Your task to perform on an android device: Go to Google Image 0: 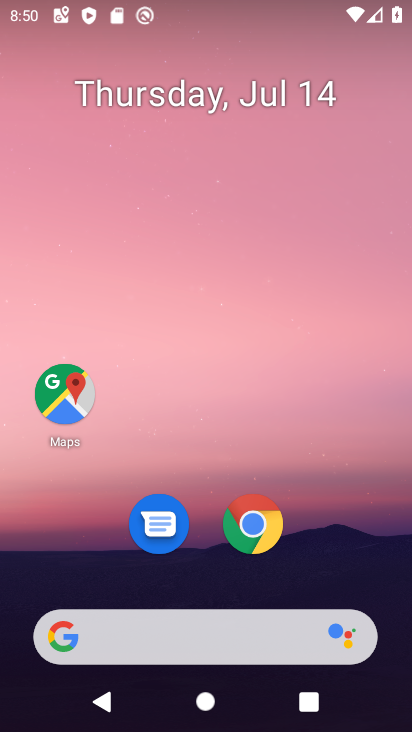
Step 0: click (135, 646)
Your task to perform on an android device: Go to Google Image 1: 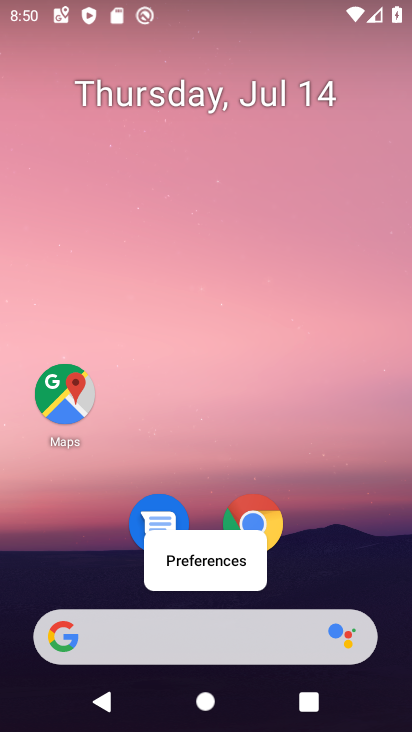
Step 1: click (139, 635)
Your task to perform on an android device: Go to Google Image 2: 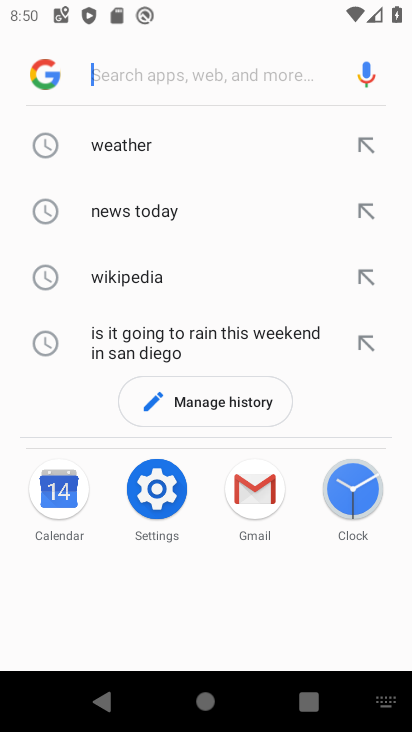
Step 2: click (36, 60)
Your task to perform on an android device: Go to Google Image 3: 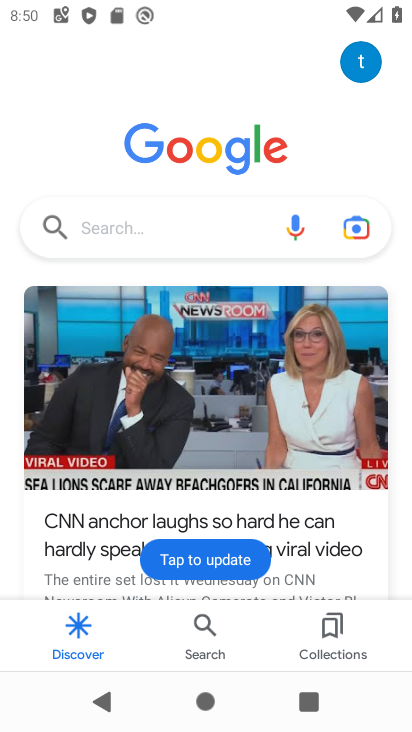
Step 3: task complete